Your task to perform on an android device: Open the web browser Image 0: 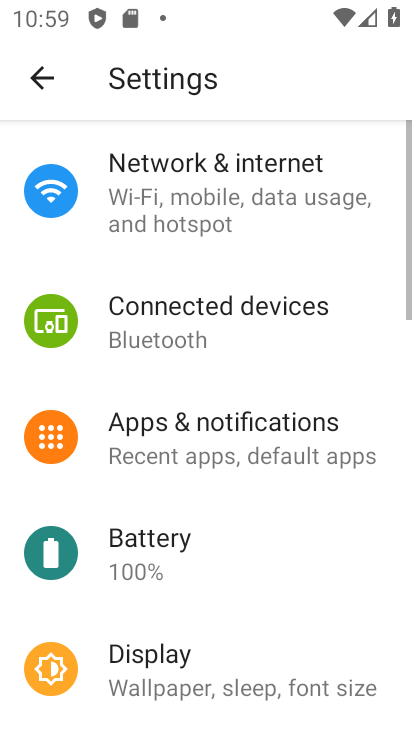
Step 0: press home button
Your task to perform on an android device: Open the web browser Image 1: 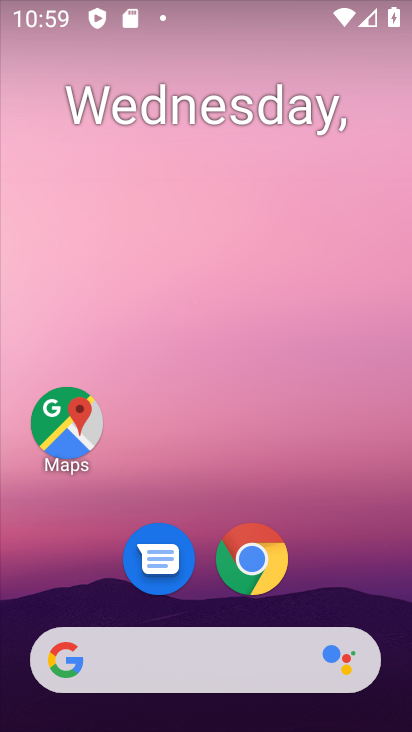
Step 1: click (277, 561)
Your task to perform on an android device: Open the web browser Image 2: 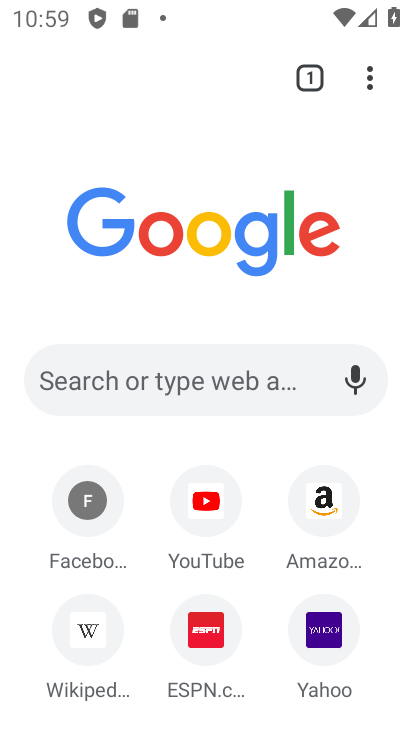
Step 2: task complete